Your task to perform on an android device: Open settings on Google Maps Image 0: 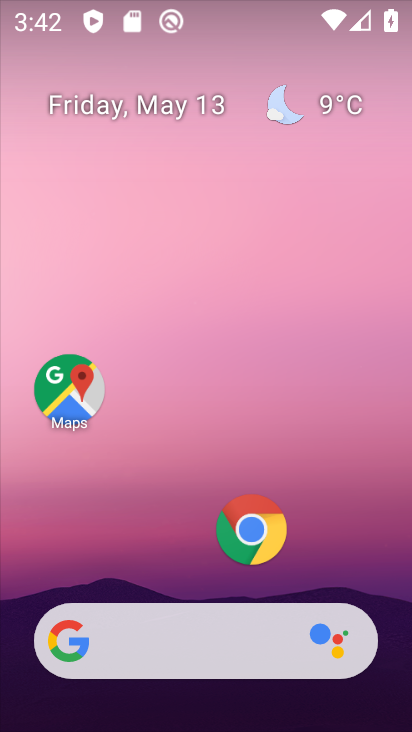
Step 0: press home button
Your task to perform on an android device: Open settings on Google Maps Image 1: 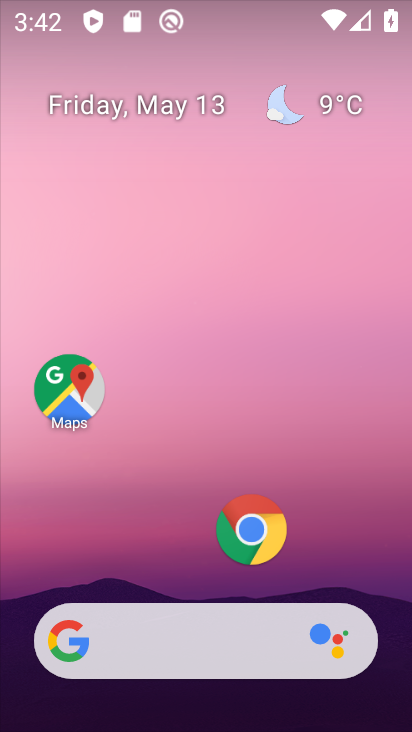
Step 1: click (71, 386)
Your task to perform on an android device: Open settings on Google Maps Image 2: 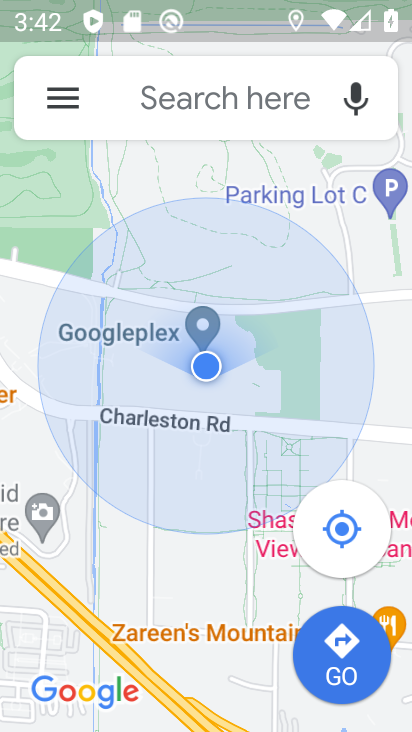
Step 2: click (65, 93)
Your task to perform on an android device: Open settings on Google Maps Image 3: 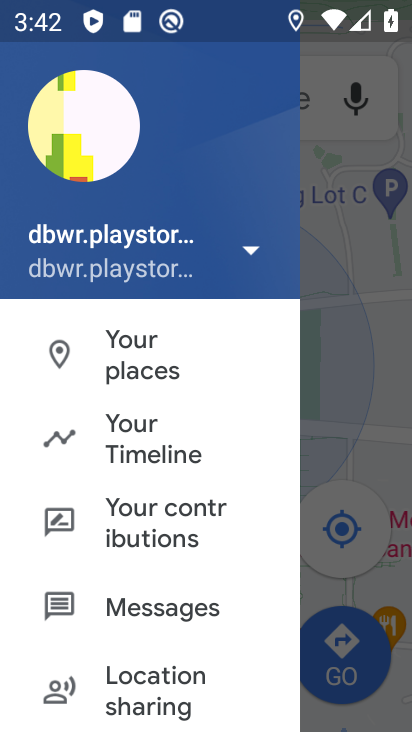
Step 3: drag from (170, 677) to (160, 257)
Your task to perform on an android device: Open settings on Google Maps Image 4: 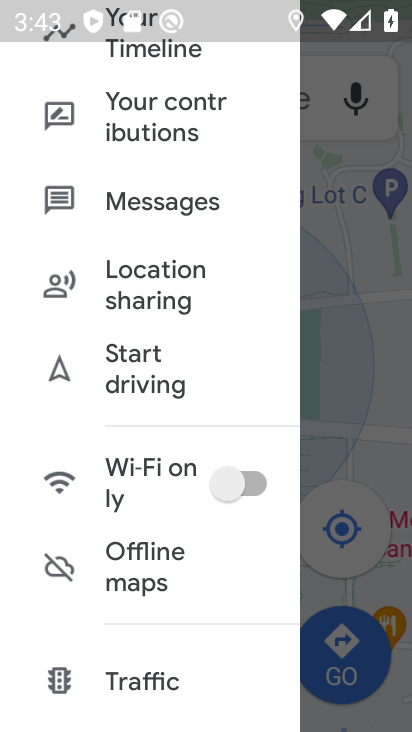
Step 4: drag from (179, 666) to (188, 101)
Your task to perform on an android device: Open settings on Google Maps Image 5: 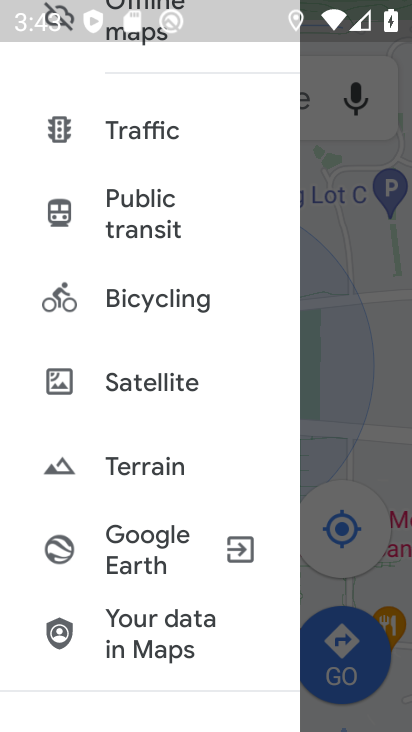
Step 5: drag from (140, 667) to (137, 168)
Your task to perform on an android device: Open settings on Google Maps Image 6: 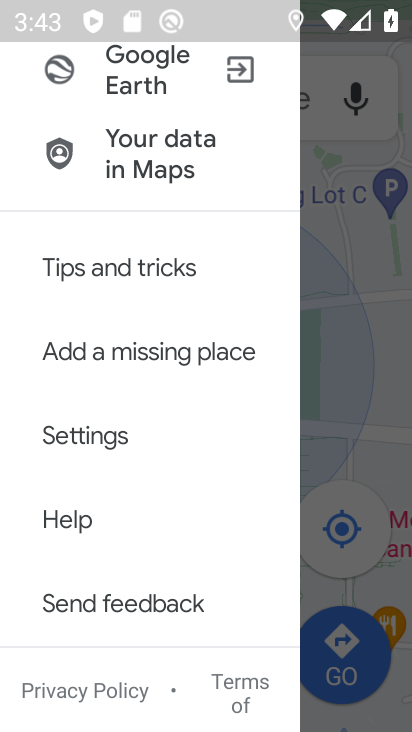
Step 6: click (115, 431)
Your task to perform on an android device: Open settings on Google Maps Image 7: 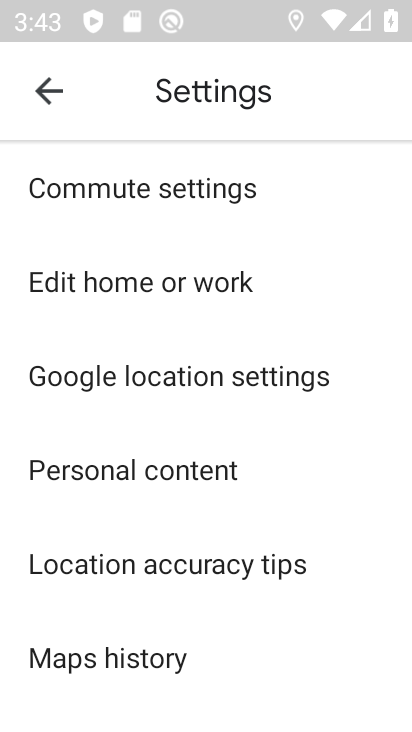
Step 7: drag from (141, 672) to (182, 95)
Your task to perform on an android device: Open settings on Google Maps Image 8: 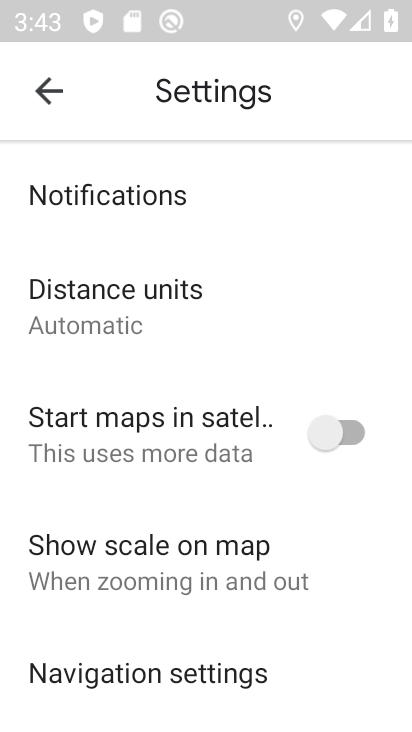
Step 8: click (171, 648)
Your task to perform on an android device: Open settings on Google Maps Image 9: 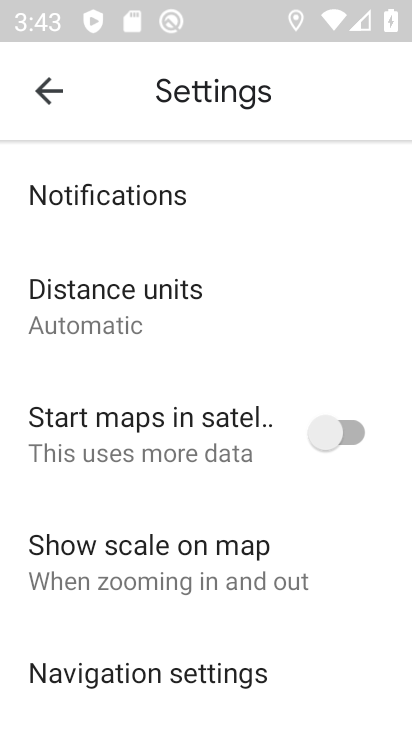
Step 9: drag from (172, 501) to (138, 195)
Your task to perform on an android device: Open settings on Google Maps Image 10: 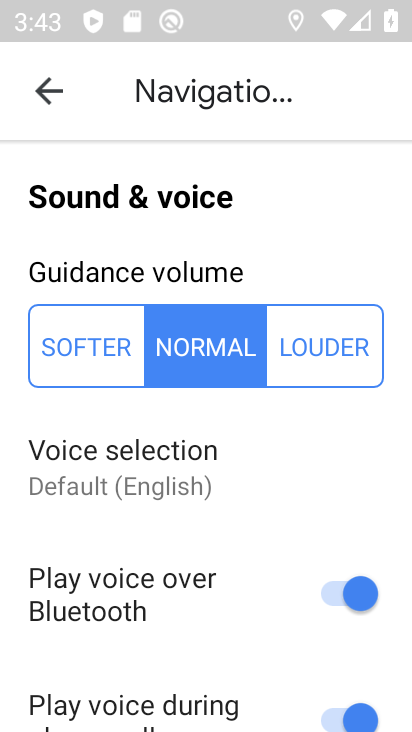
Step 10: click (43, 103)
Your task to perform on an android device: Open settings on Google Maps Image 11: 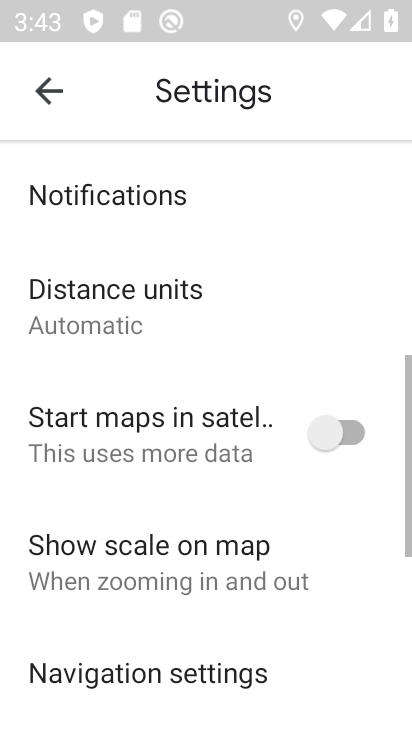
Step 11: task complete